Your task to perform on an android device: Open wifi settings Image 0: 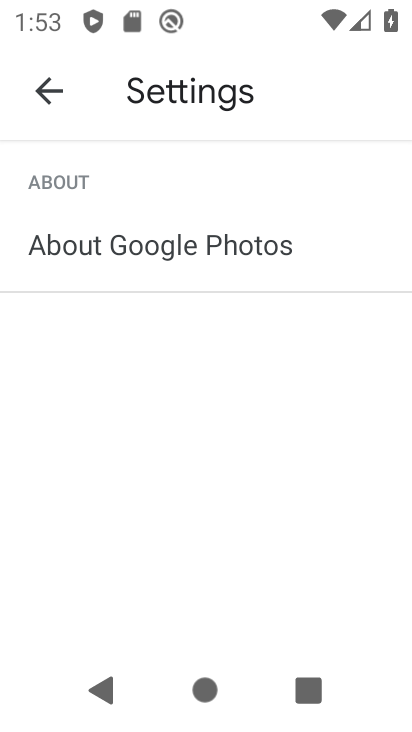
Step 0: press home button
Your task to perform on an android device: Open wifi settings Image 1: 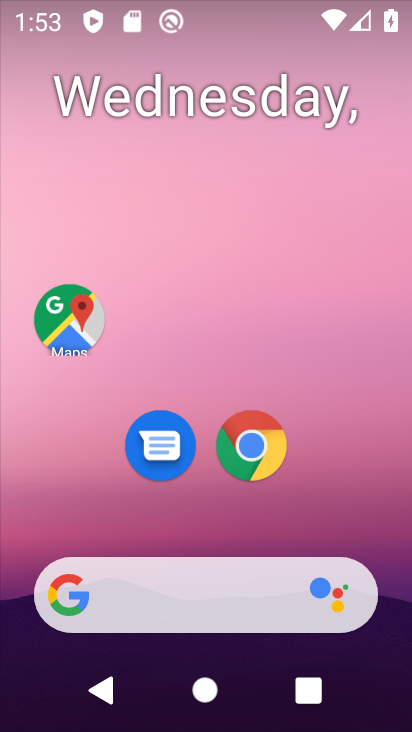
Step 1: drag from (193, 537) to (180, 70)
Your task to perform on an android device: Open wifi settings Image 2: 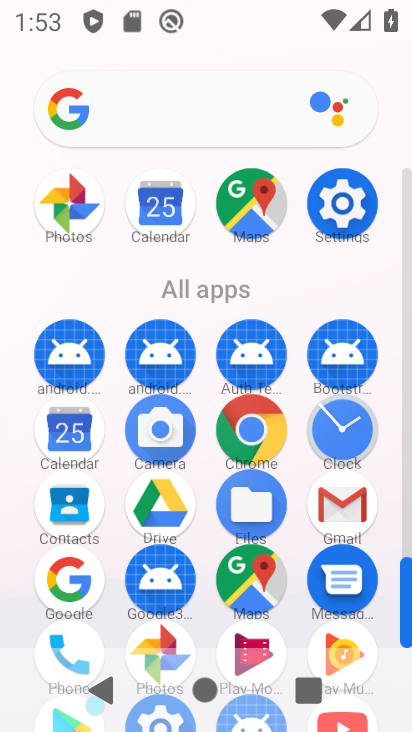
Step 2: click (321, 207)
Your task to perform on an android device: Open wifi settings Image 3: 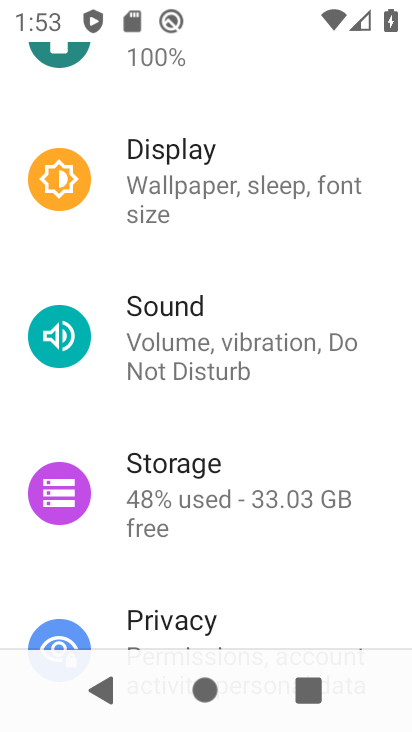
Step 3: drag from (191, 135) to (188, 489)
Your task to perform on an android device: Open wifi settings Image 4: 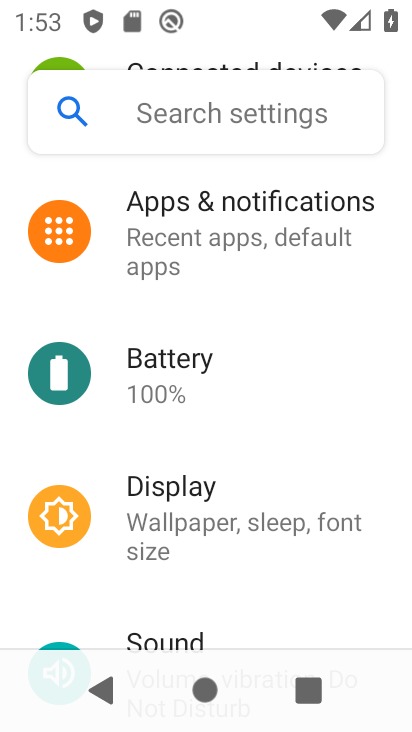
Step 4: drag from (204, 181) to (207, 499)
Your task to perform on an android device: Open wifi settings Image 5: 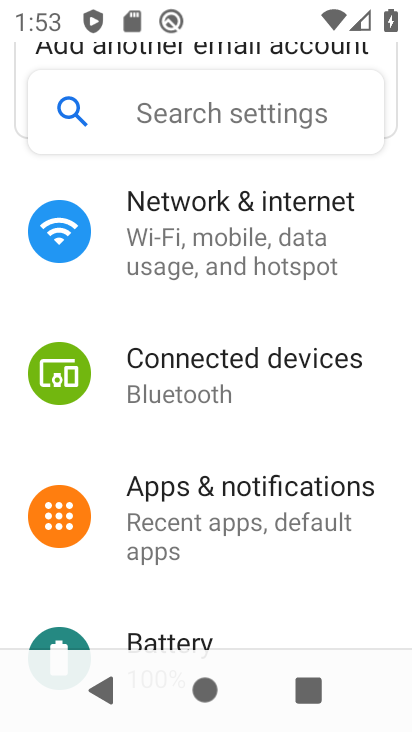
Step 5: drag from (198, 226) to (217, 521)
Your task to perform on an android device: Open wifi settings Image 6: 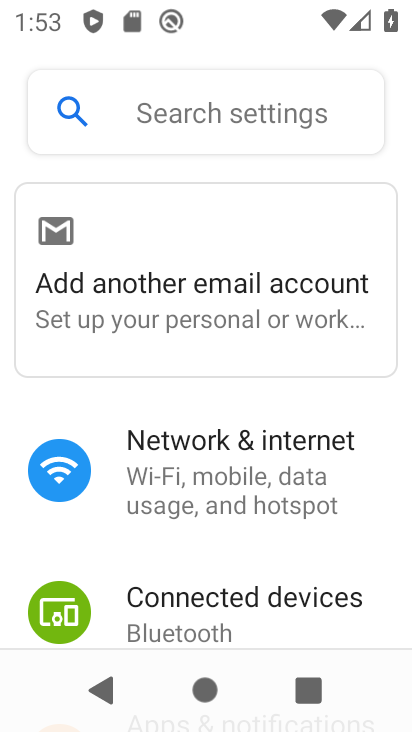
Step 6: click (202, 430)
Your task to perform on an android device: Open wifi settings Image 7: 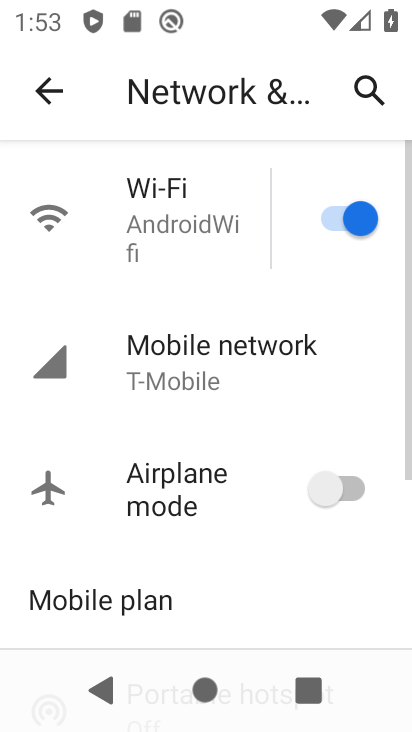
Step 7: click (189, 232)
Your task to perform on an android device: Open wifi settings Image 8: 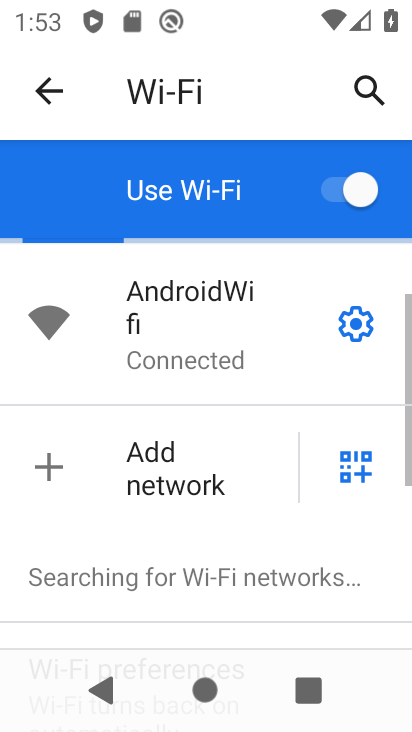
Step 8: task complete